Your task to perform on an android device: turn on sleep mode Image 0: 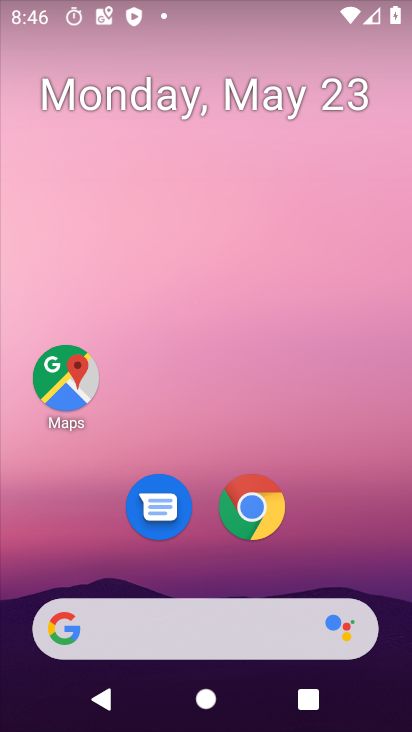
Step 0: drag from (330, 468) to (23, 271)
Your task to perform on an android device: turn on sleep mode Image 1: 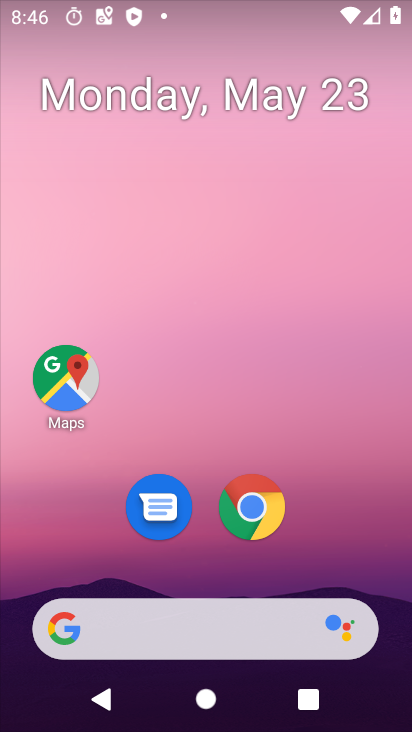
Step 1: drag from (343, 549) to (254, 53)
Your task to perform on an android device: turn on sleep mode Image 2: 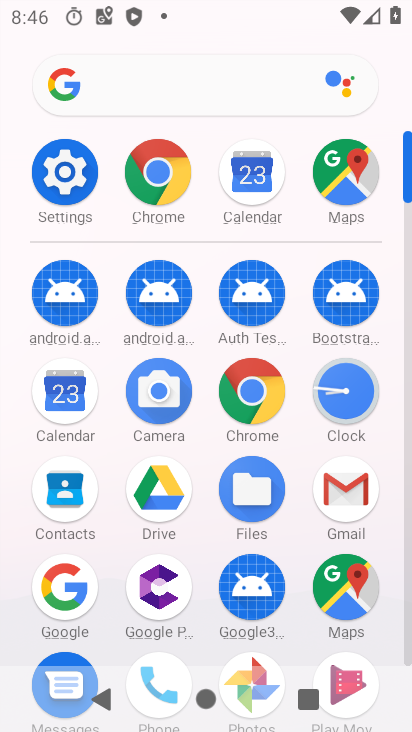
Step 2: click (39, 186)
Your task to perform on an android device: turn on sleep mode Image 3: 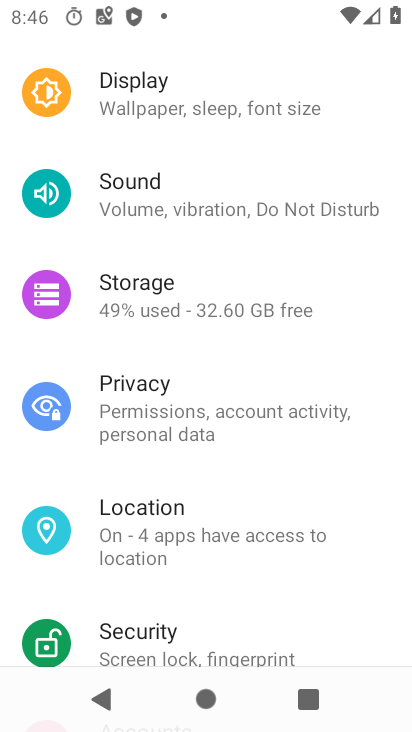
Step 3: drag from (192, 236) to (264, 638)
Your task to perform on an android device: turn on sleep mode Image 4: 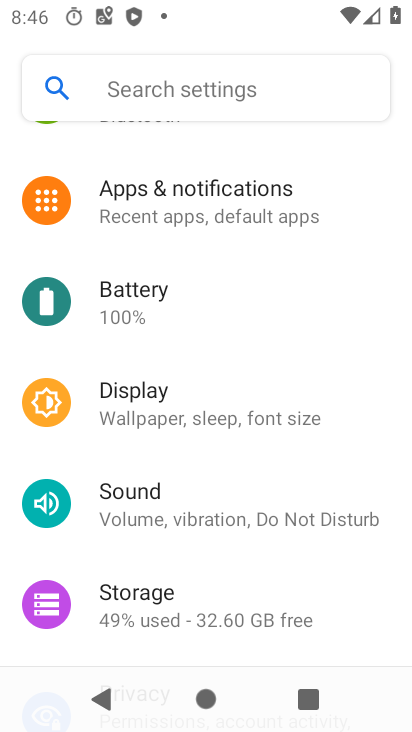
Step 4: click (157, 418)
Your task to perform on an android device: turn on sleep mode Image 5: 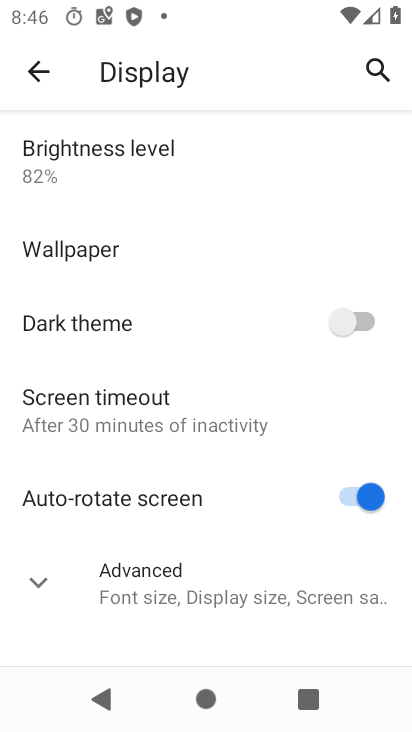
Step 5: click (149, 416)
Your task to perform on an android device: turn on sleep mode Image 6: 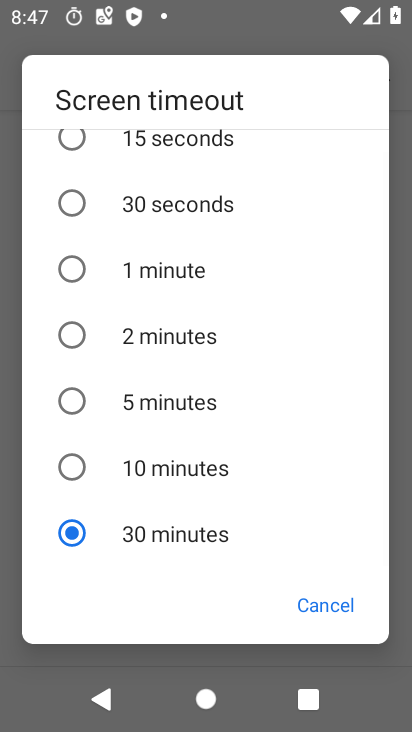
Step 6: task complete